Your task to perform on an android device: make emails show in primary in the gmail app Image 0: 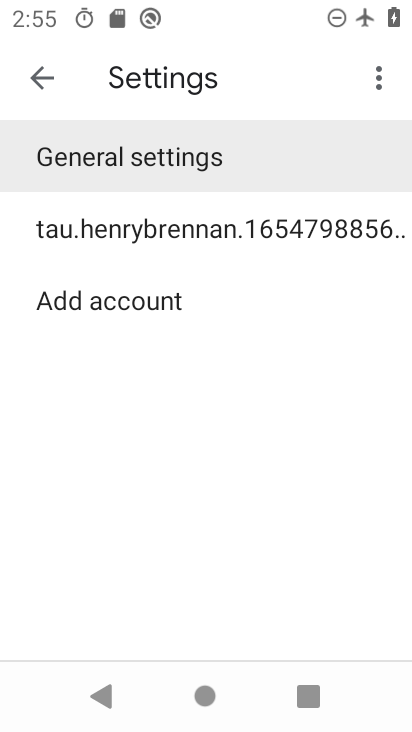
Step 0: press home button
Your task to perform on an android device: make emails show in primary in the gmail app Image 1: 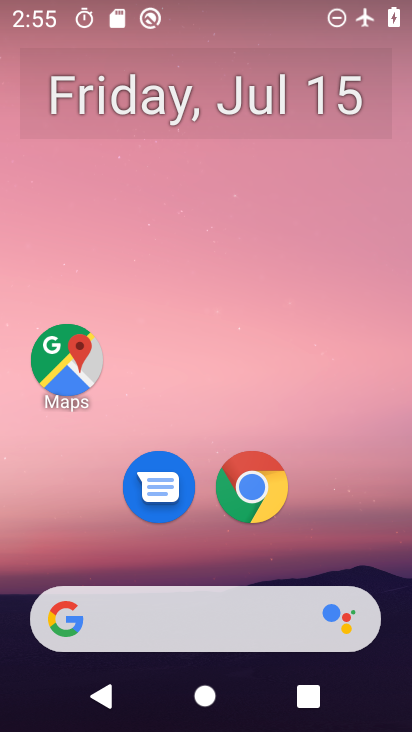
Step 1: drag from (188, 596) to (196, 100)
Your task to perform on an android device: make emails show in primary in the gmail app Image 2: 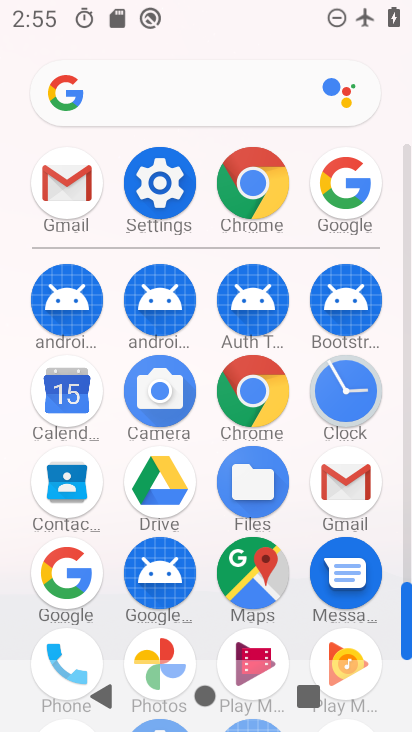
Step 2: click (353, 508)
Your task to perform on an android device: make emails show in primary in the gmail app Image 3: 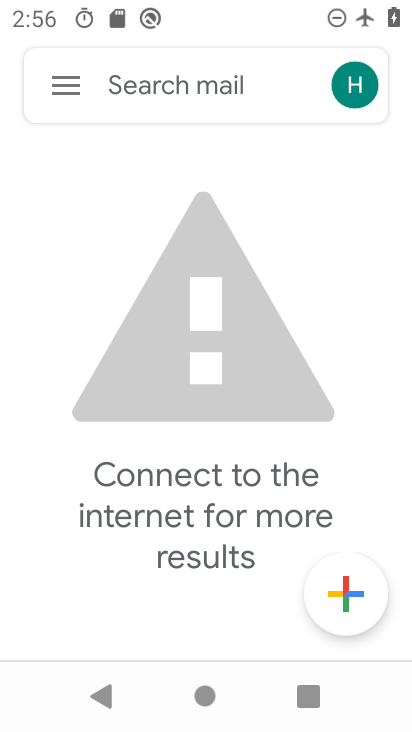
Step 3: click (75, 85)
Your task to perform on an android device: make emails show in primary in the gmail app Image 4: 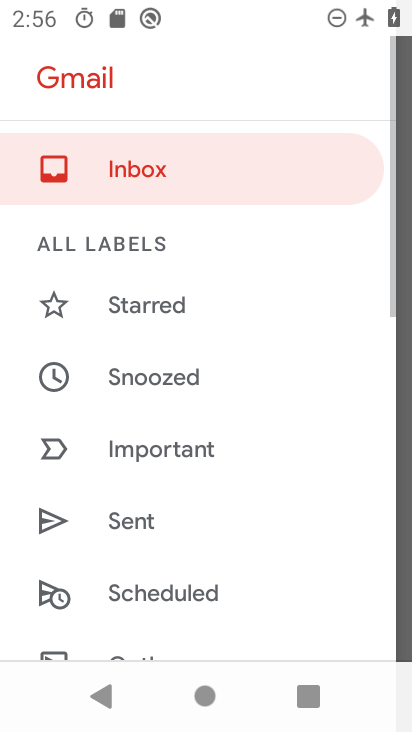
Step 4: drag from (154, 459) to (158, 200)
Your task to perform on an android device: make emails show in primary in the gmail app Image 5: 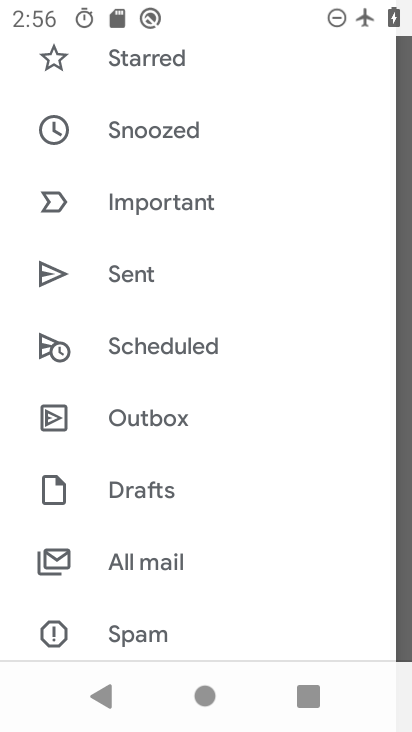
Step 5: click (152, 569)
Your task to perform on an android device: make emails show in primary in the gmail app Image 6: 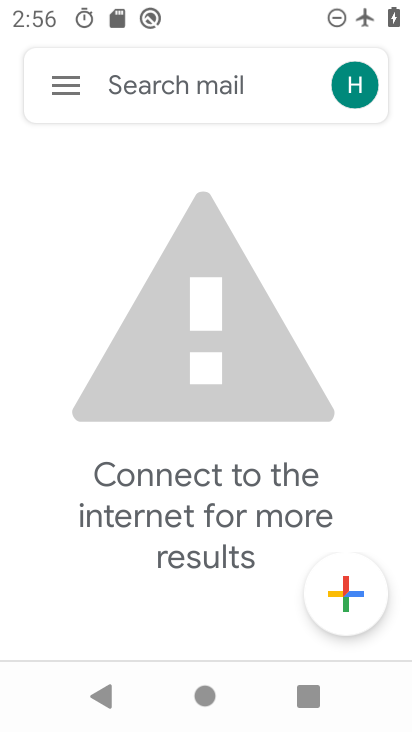
Step 6: task complete